Your task to perform on an android device: toggle location history Image 0: 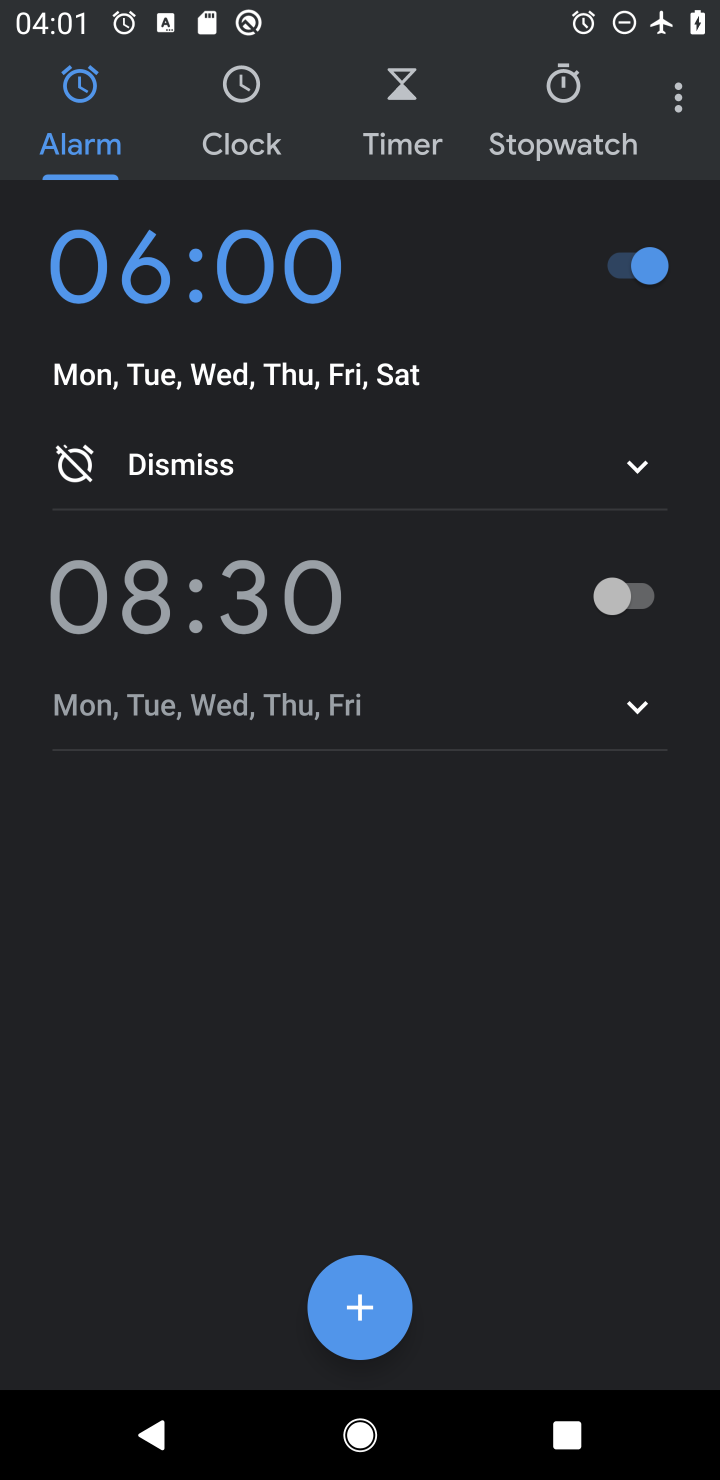
Step 0: press home button
Your task to perform on an android device: toggle location history Image 1: 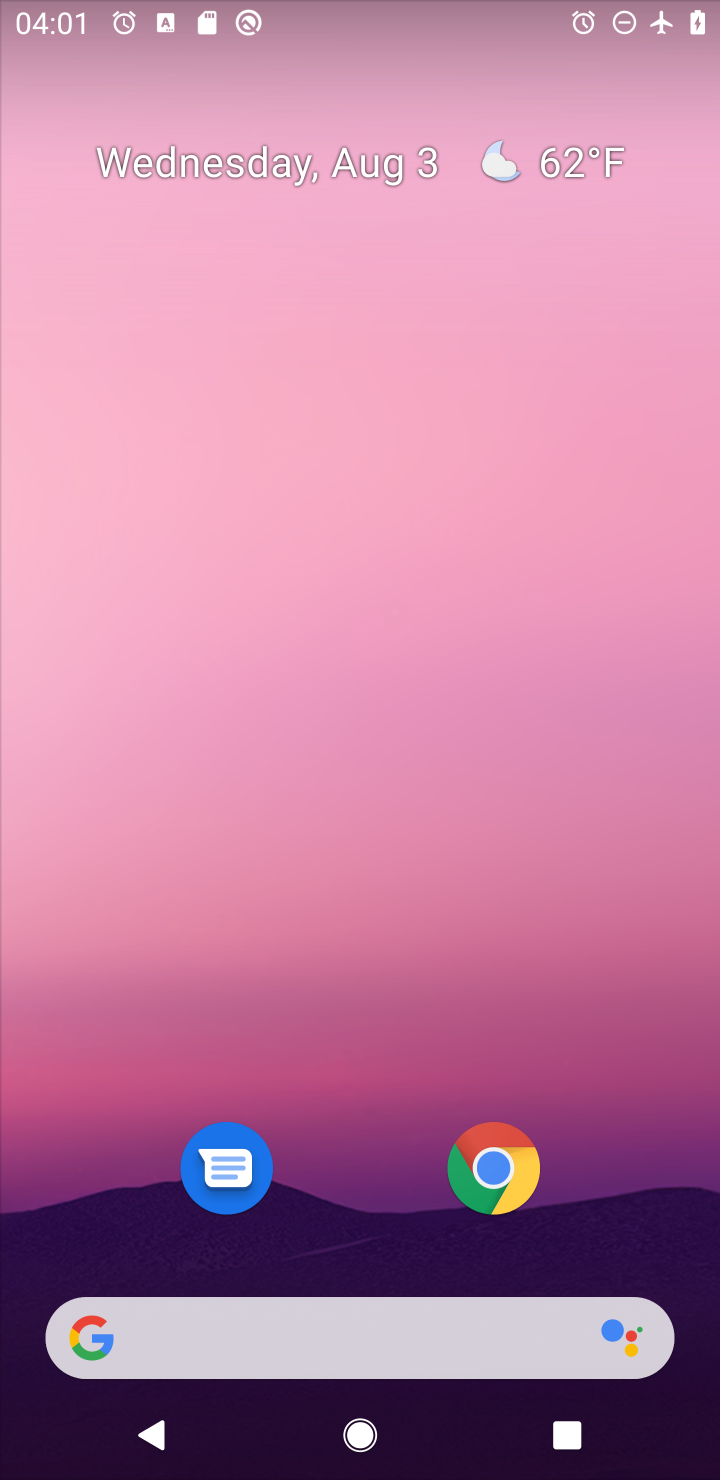
Step 1: drag from (598, 1003) to (545, 233)
Your task to perform on an android device: toggle location history Image 2: 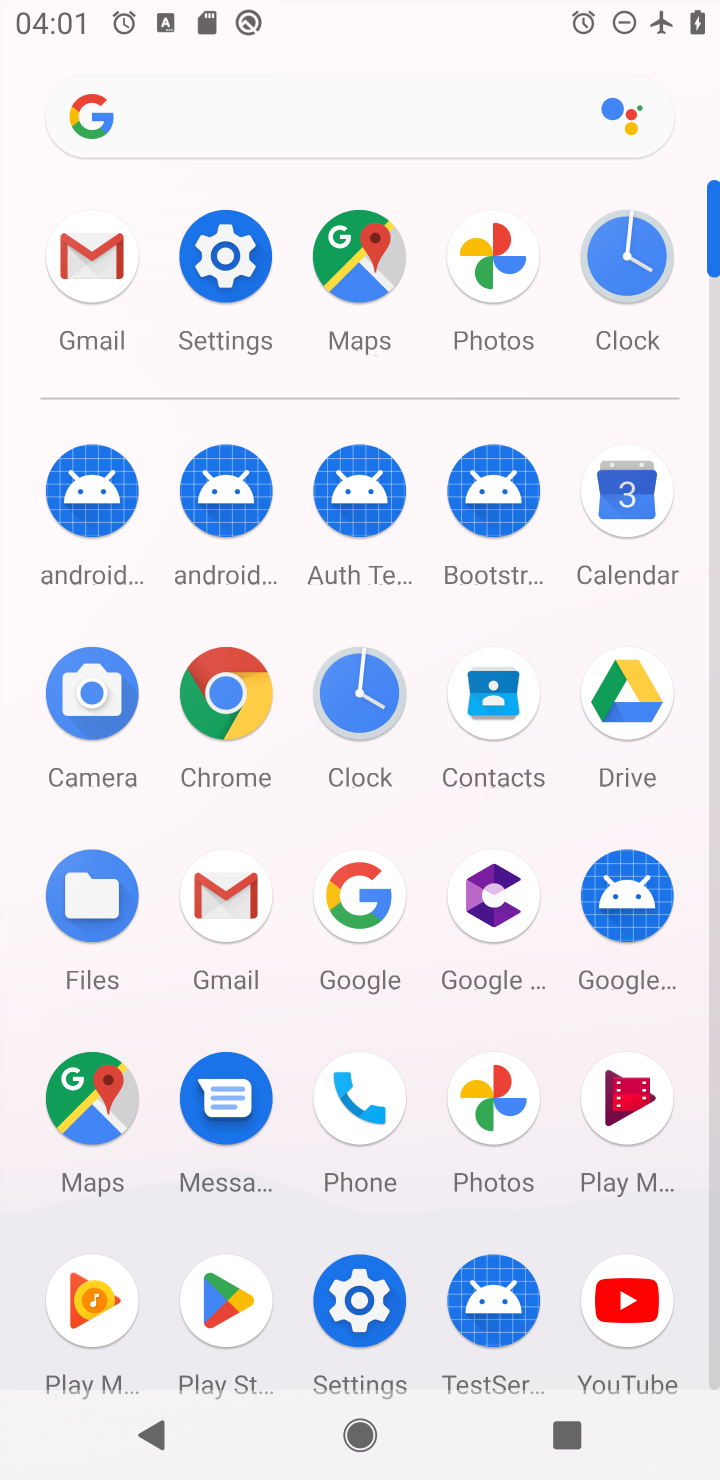
Step 2: click (102, 1109)
Your task to perform on an android device: toggle location history Image 3: 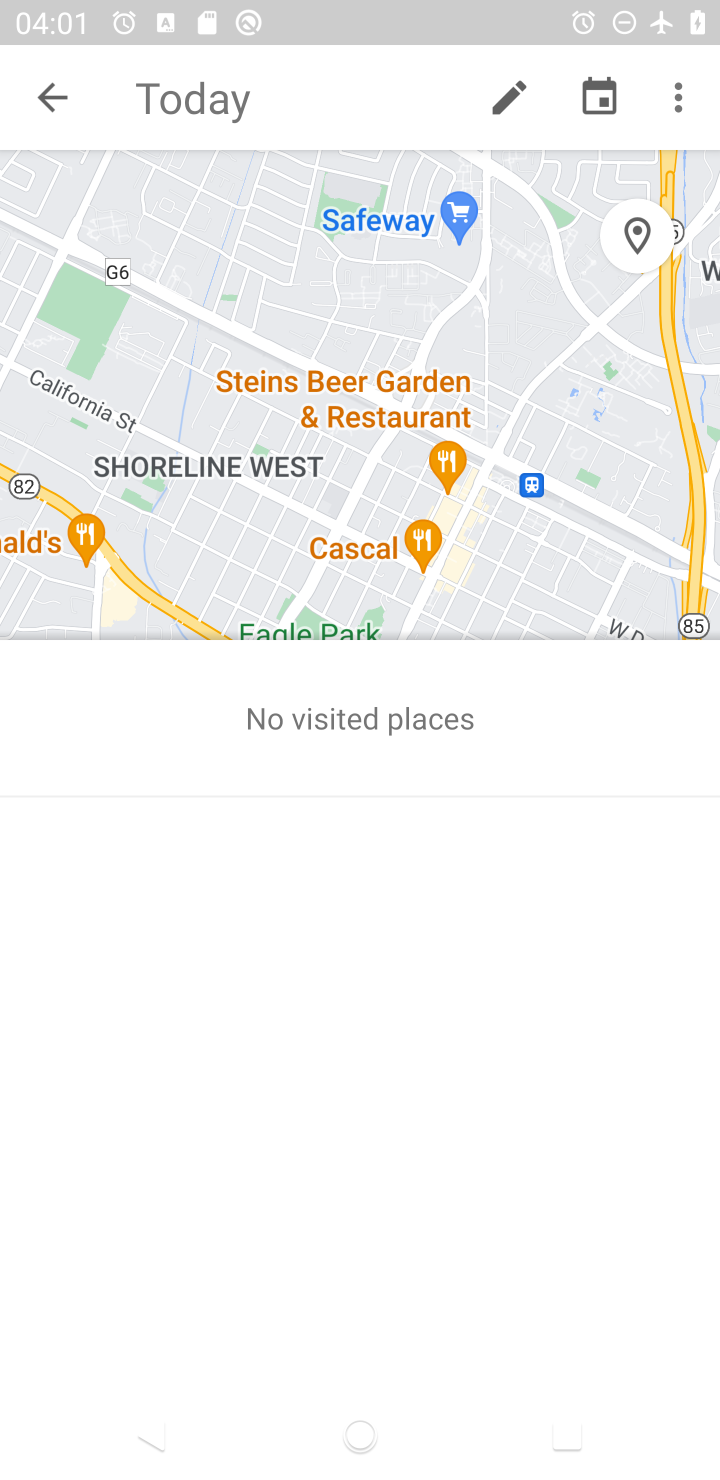
Step 3: press back button
Your task to perform on an android device: toggle location history Image 4: 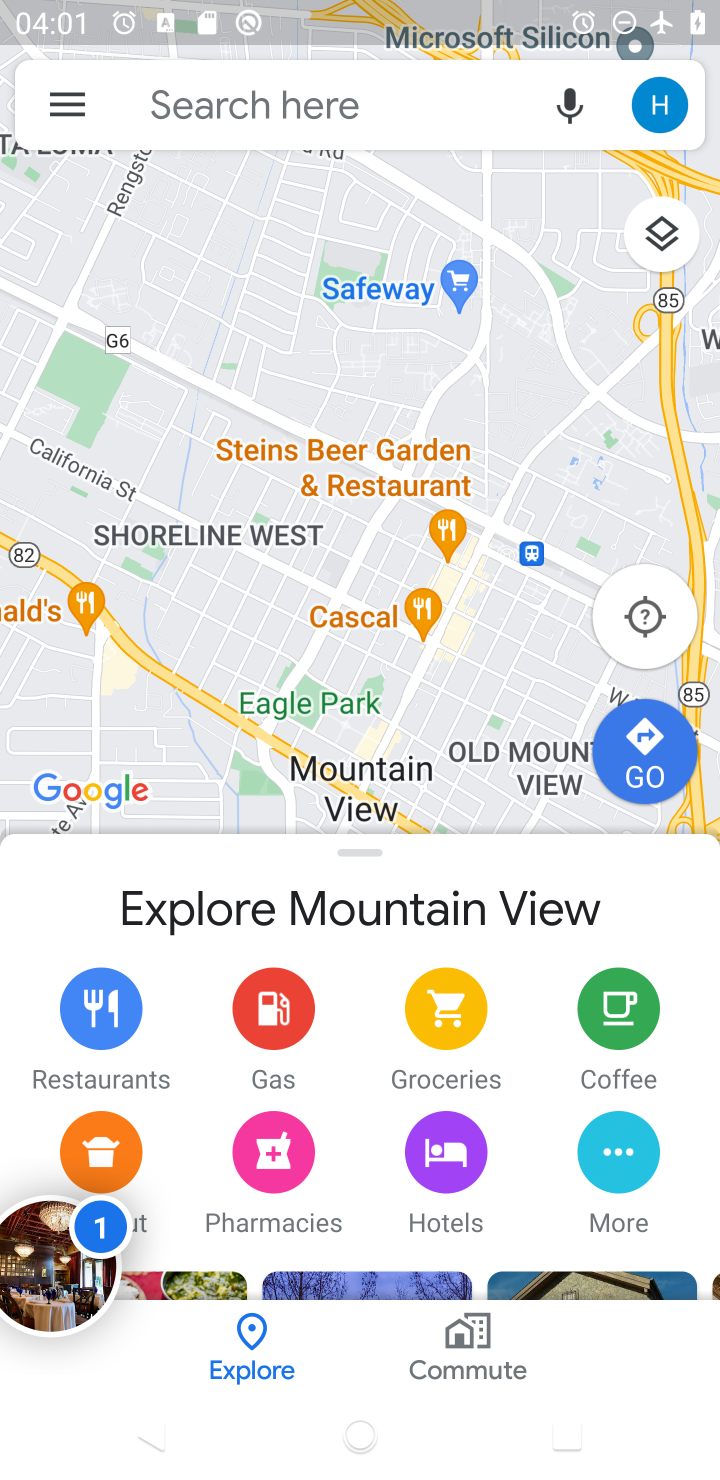
Step 4: click (57, 98)
Your task to perform on an android device: toggle location history Image 5: 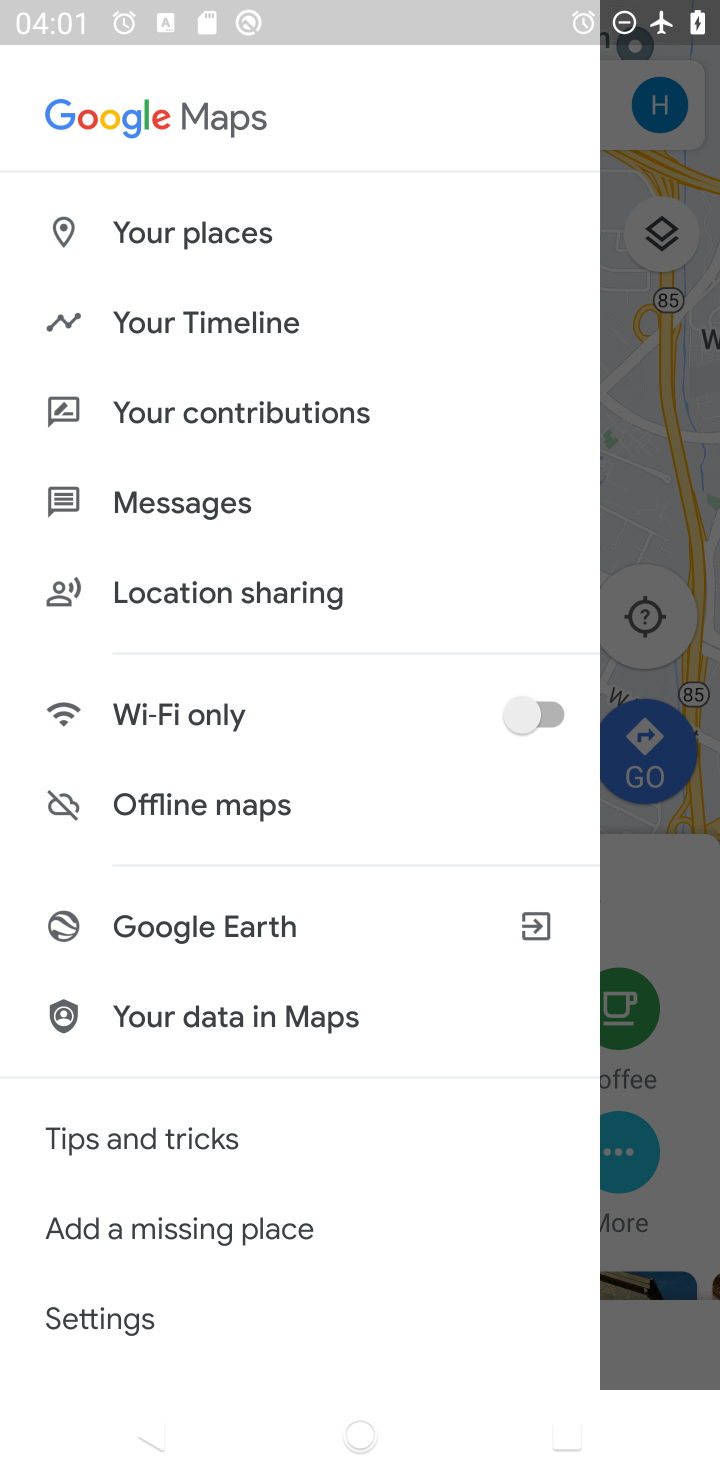
Step 5: click (114, 1316)
Your task to perform on an android device: toggle location history Image 6: 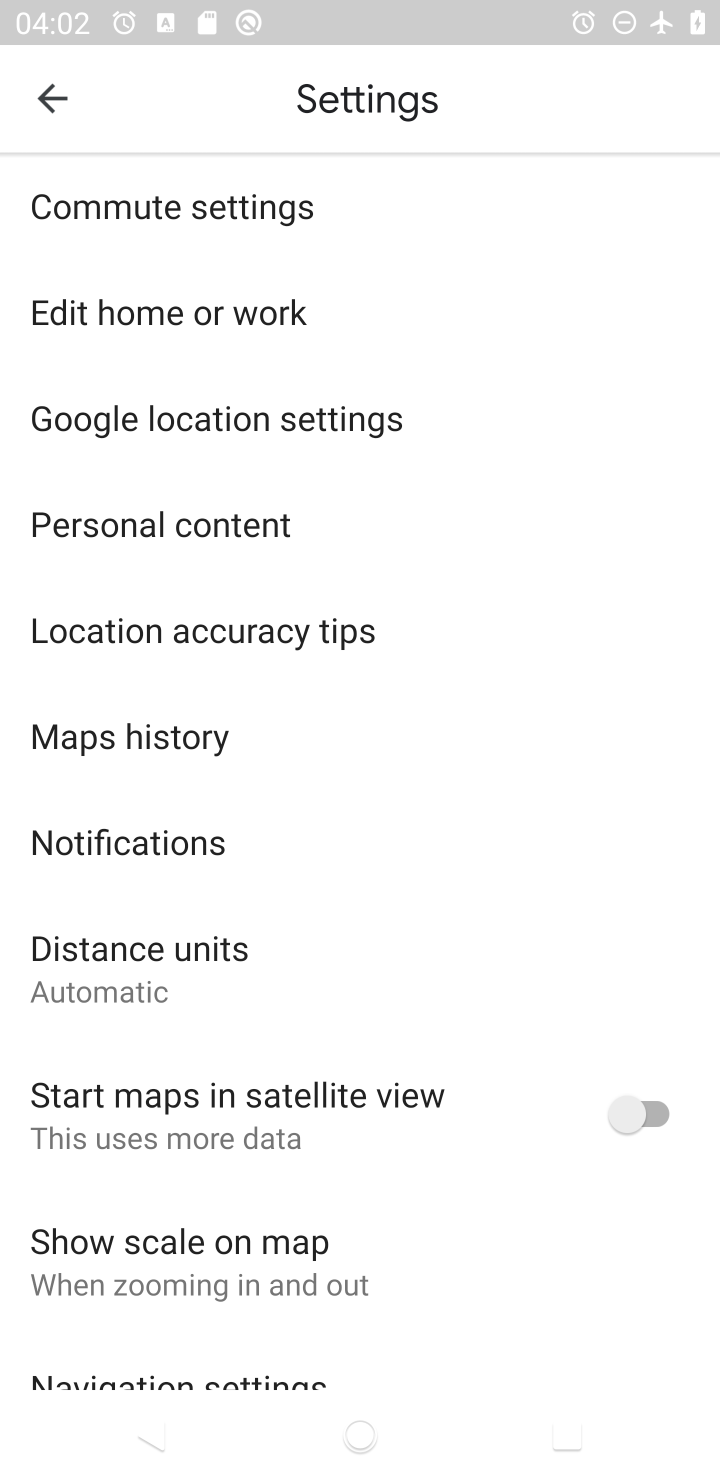
Step 6: click (209, 542)
Your task to perform on an android device: toggle location history Image 7: 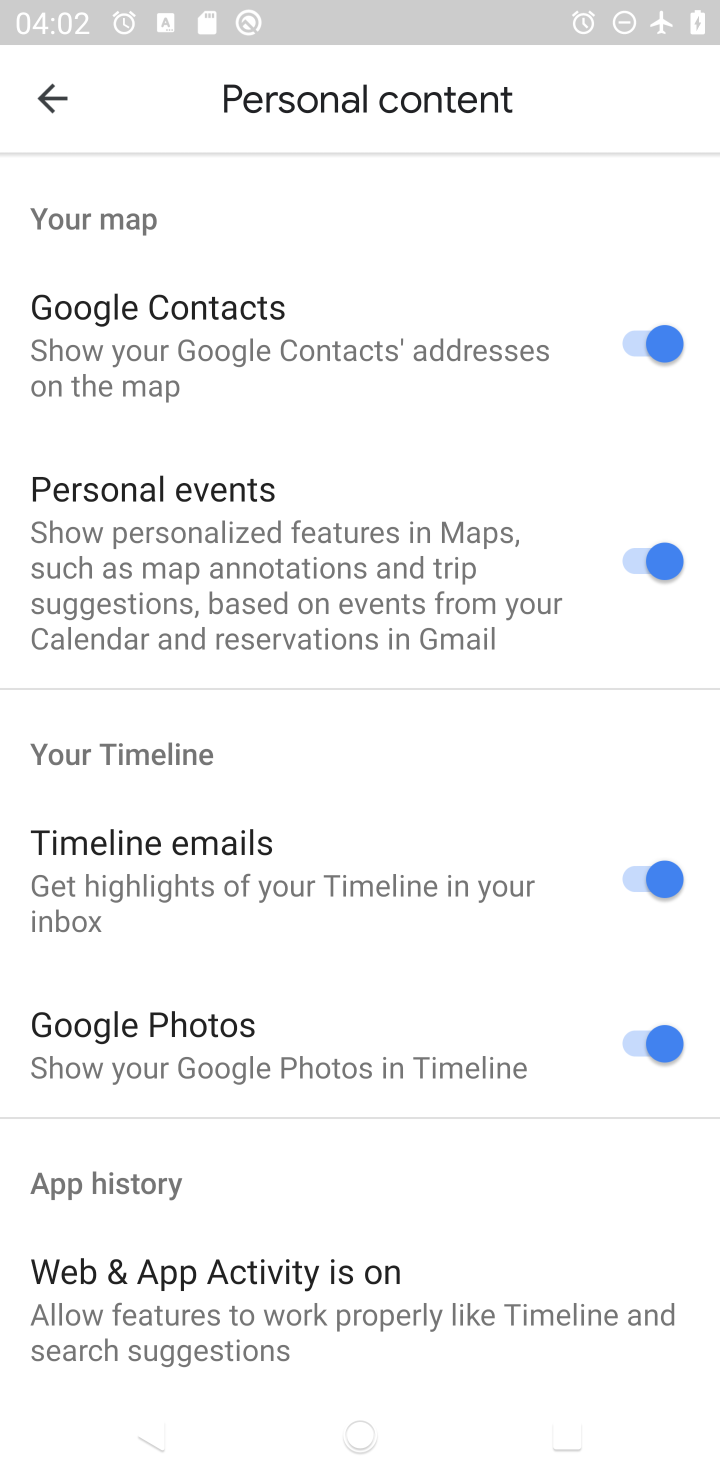
Step 7: drag from (491, 1255) to (502, 330)
Your task to perform on an android device: toggle location history Image 8: 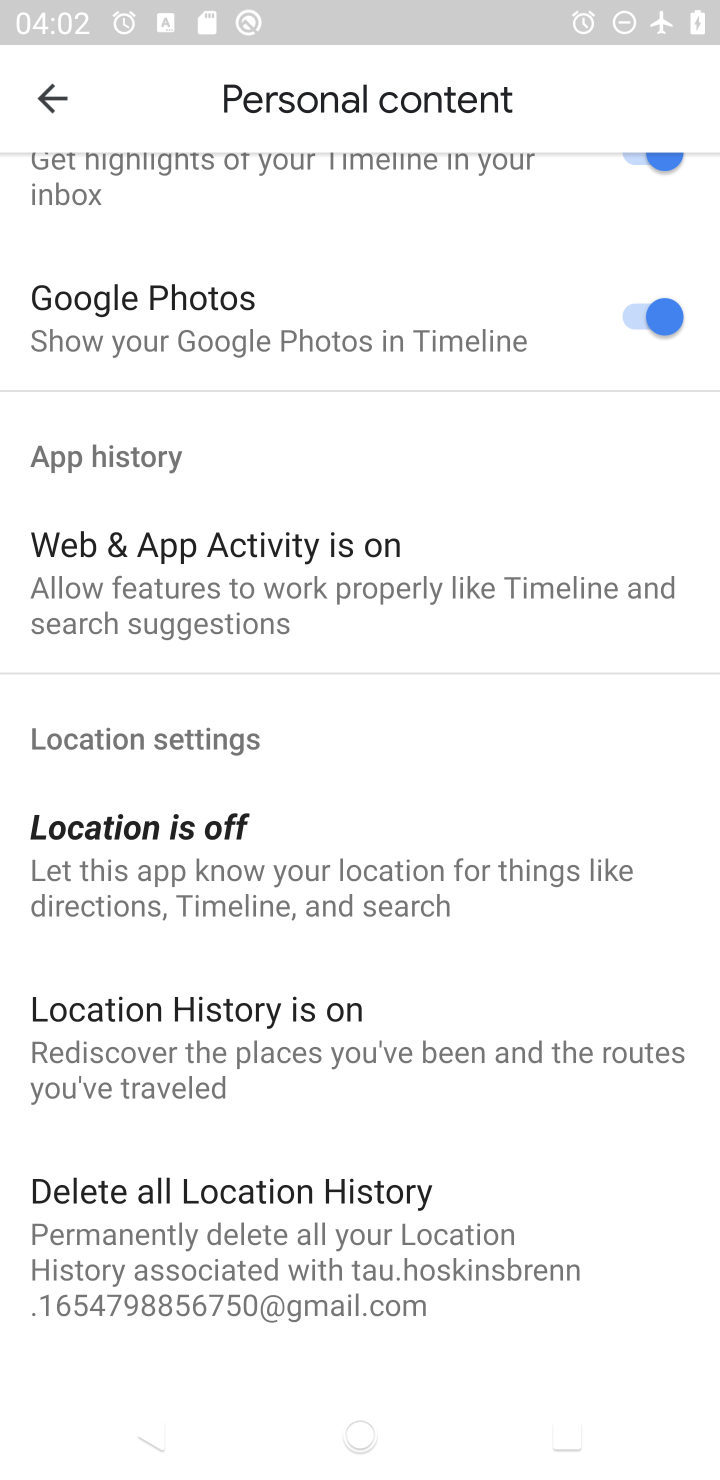
Step 8: click (225, 1043)
Your task to perform on an android device: toggle location history Image 9: 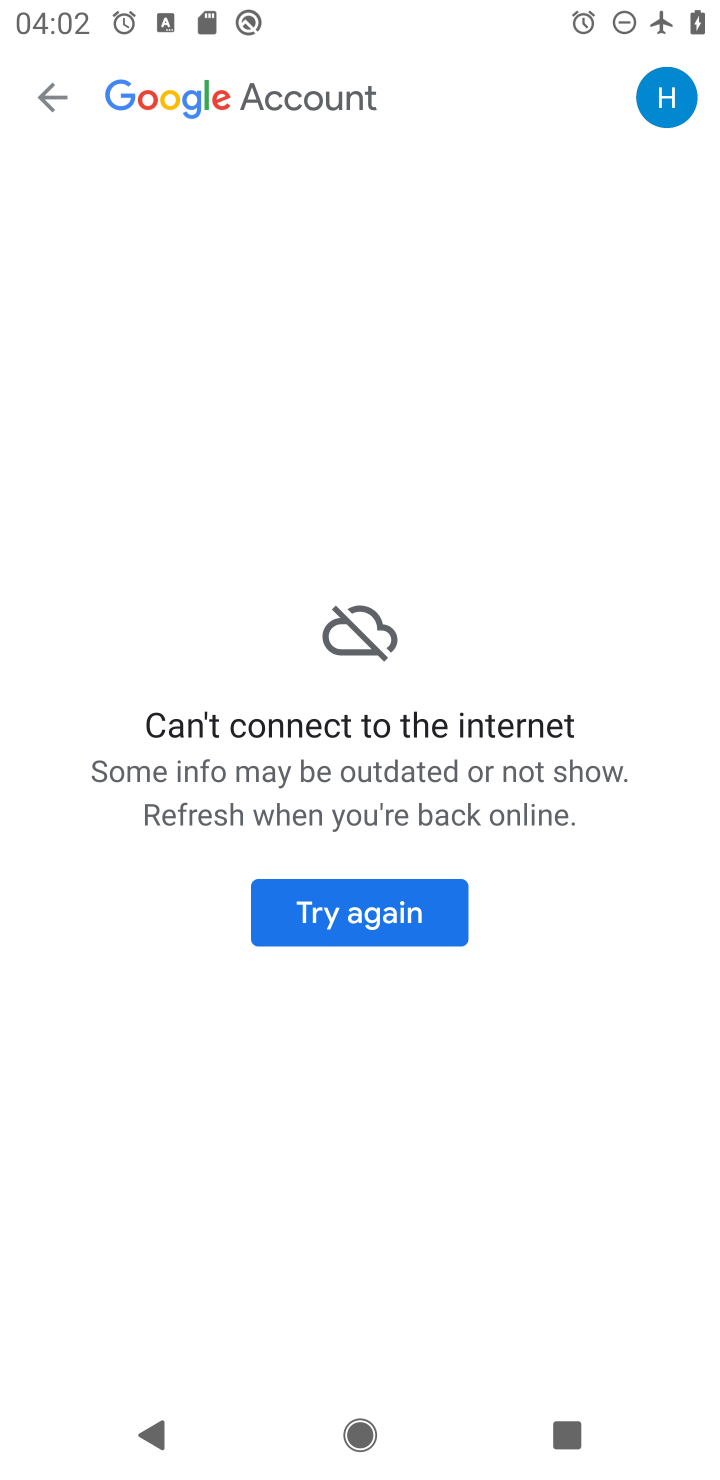
Step 9: click (328, 913)
Your task to perform on an android device: toggle location history Image 10: 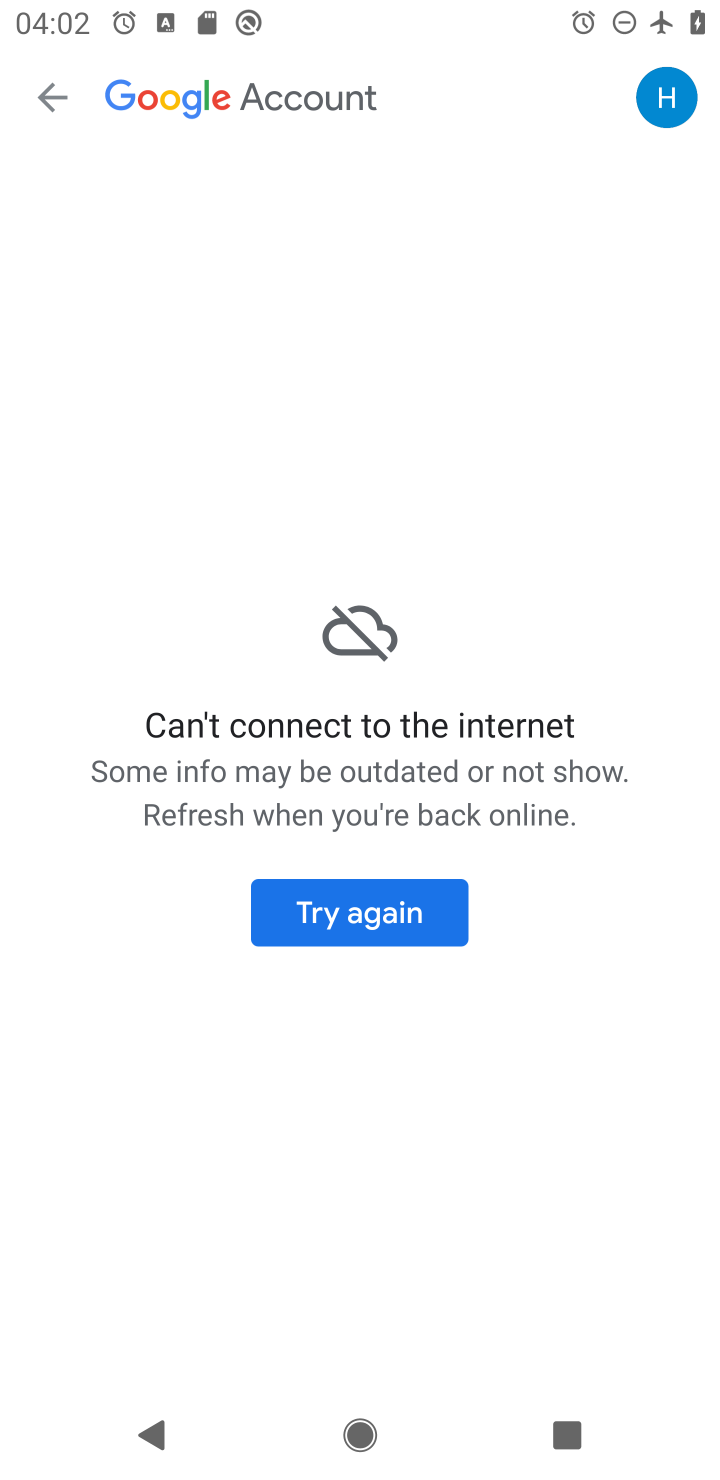
Step 10: task complete